Your task to perform on an android device: Open the Play Movies app and select the watchlist tab. Image 0: 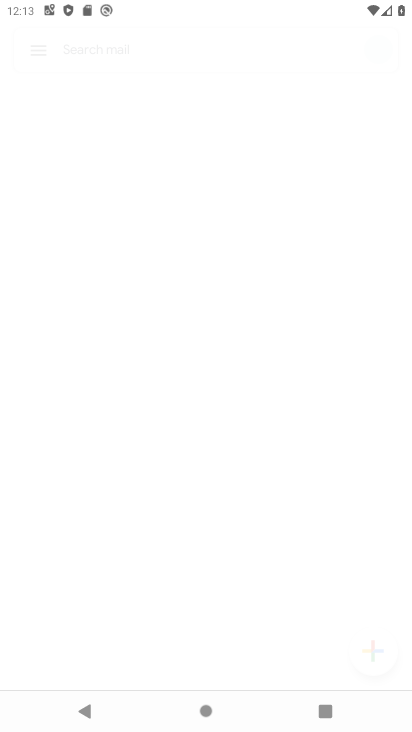
Step 0: drag from (24, 701) to (242, 125)
Your task to perform on an android device: Open the Play Movies app and select the watchlist tab. Image 1: 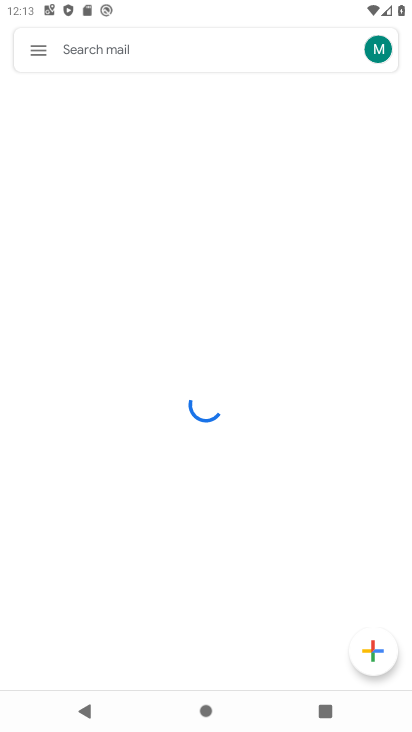
Step 1: press home button
Your task to perform on an android device: Open the Play Movies app and select the watchlist tab. Image 2: 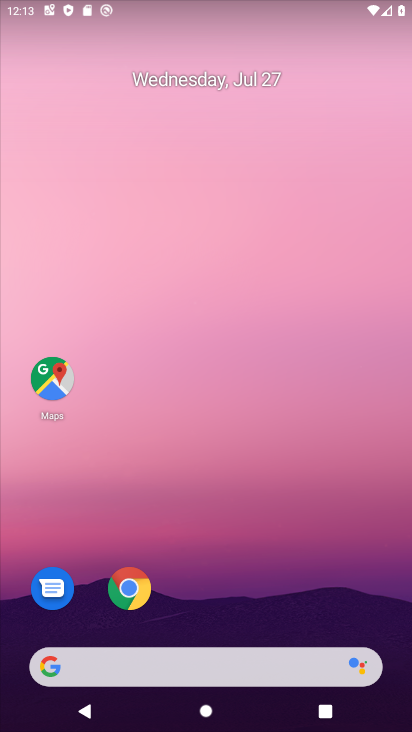
Step 2: drag from (37, 698) to (162, 0)
Your task to perform on an android device: Open the Play Movies app and select the watchlist tab. Image 3: 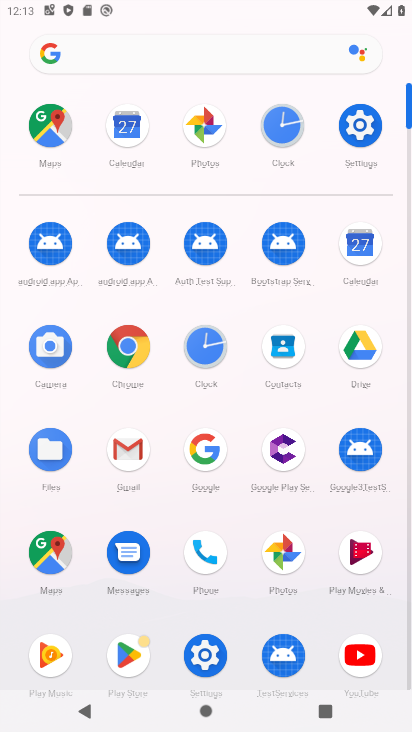
Step 3: click (363, 565)
Your task to perform on an android device: Open the Play Movies app and select the watchlist tab. Image 4: 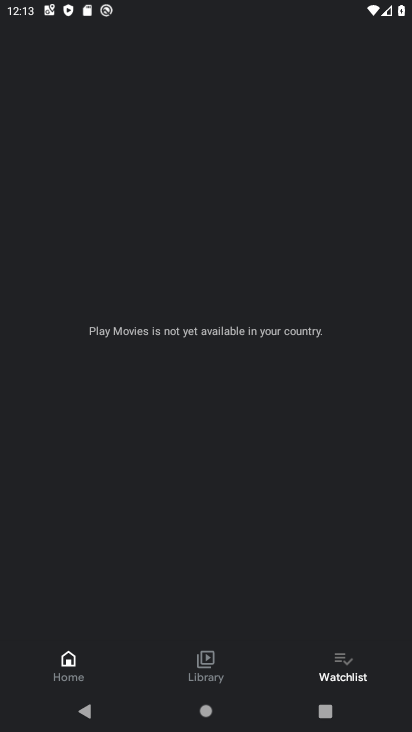
Step 4: click (332, 664)
Your task to perform on an android device: Open the Play Movies app and select the watchlist tab. Image 5: 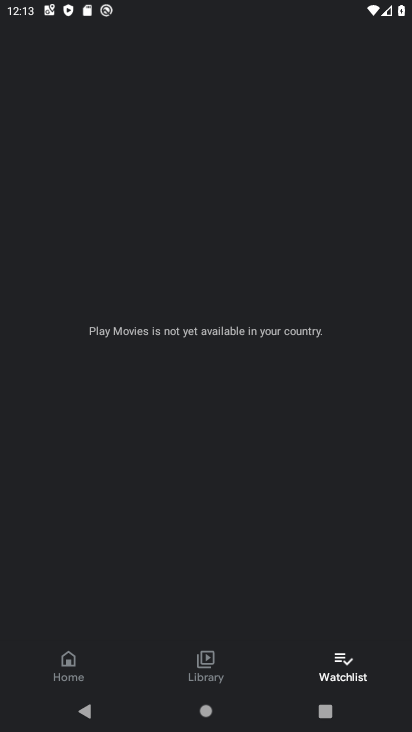
Step 5: task complete